Your task to perform on an android device: choose inbox layout in the gmail app Image 0: 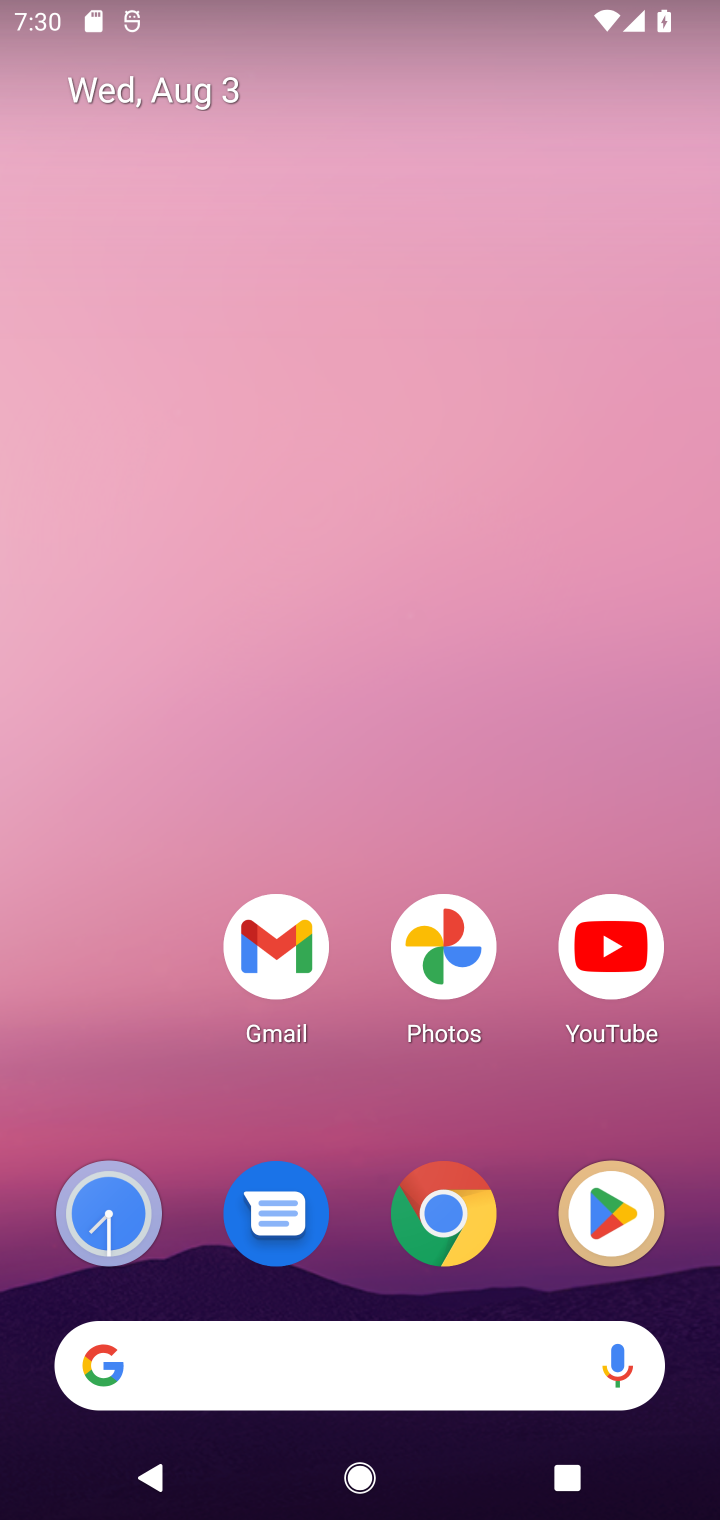
Step 0: click (443, 1204)
Your task to perform on an android device: choose inbox layout in the gmail app Image 1: 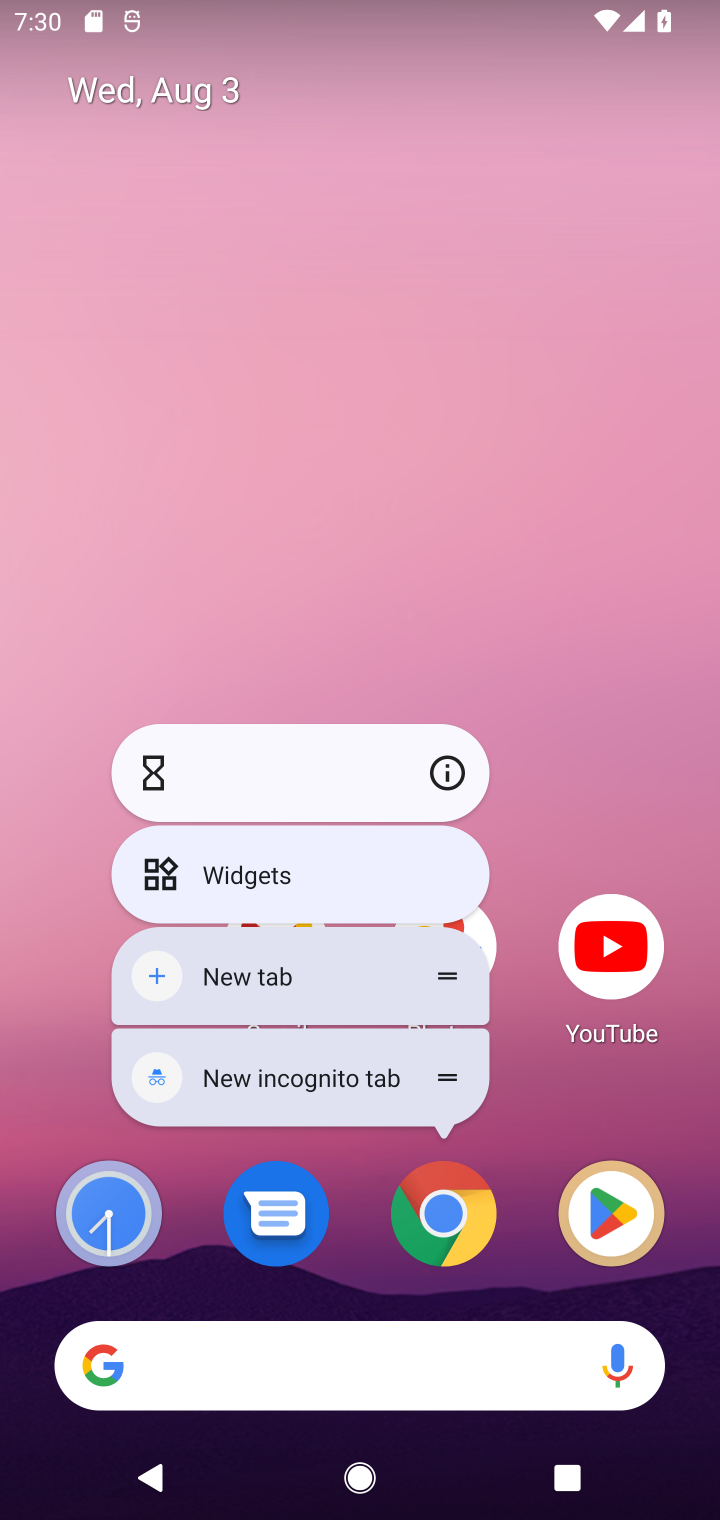
Step 1: click (39, 919)
Your task to perform on an android device: choose inbox layout in the gmail app Image 2: 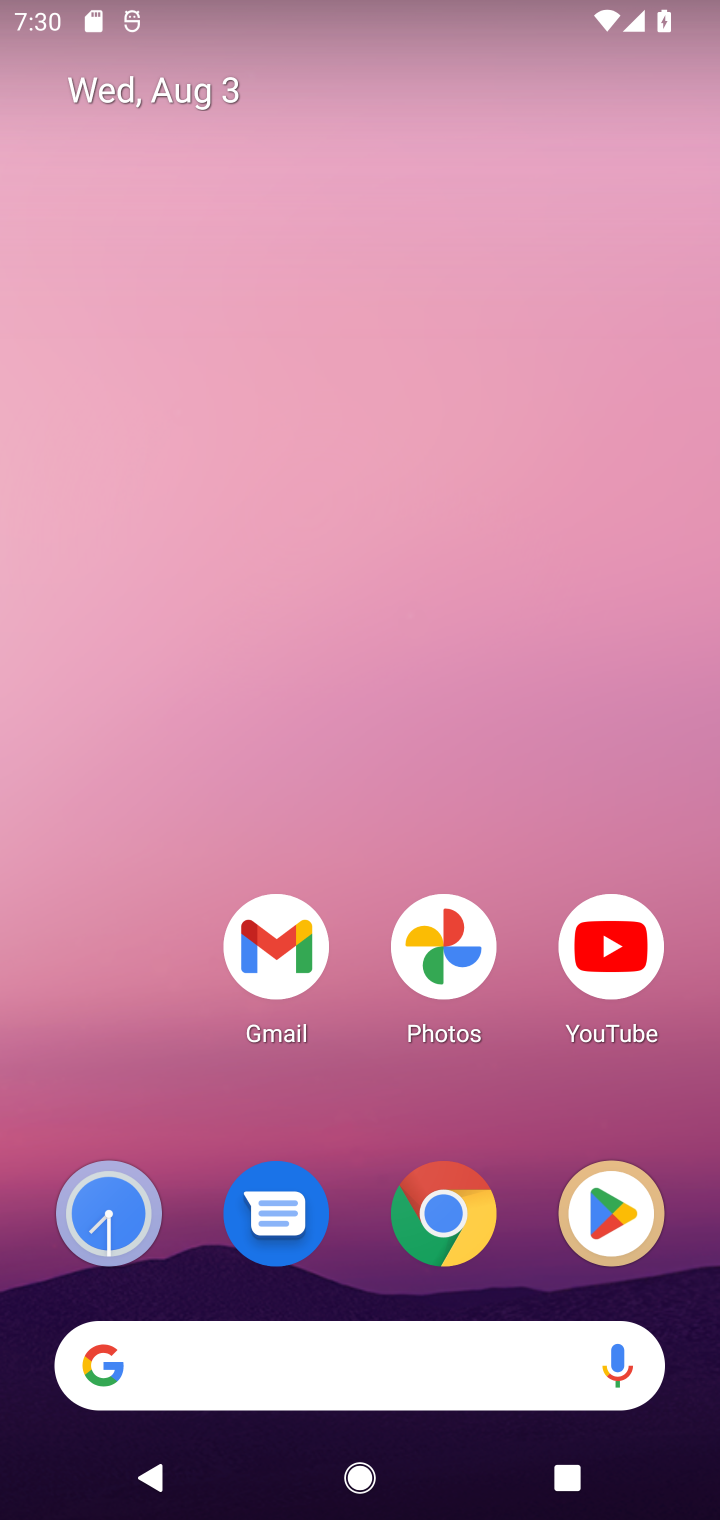
Step 2: click (225, 513)
Your task to perform on an android device: choose inbox layout in the gmail app Image 3: 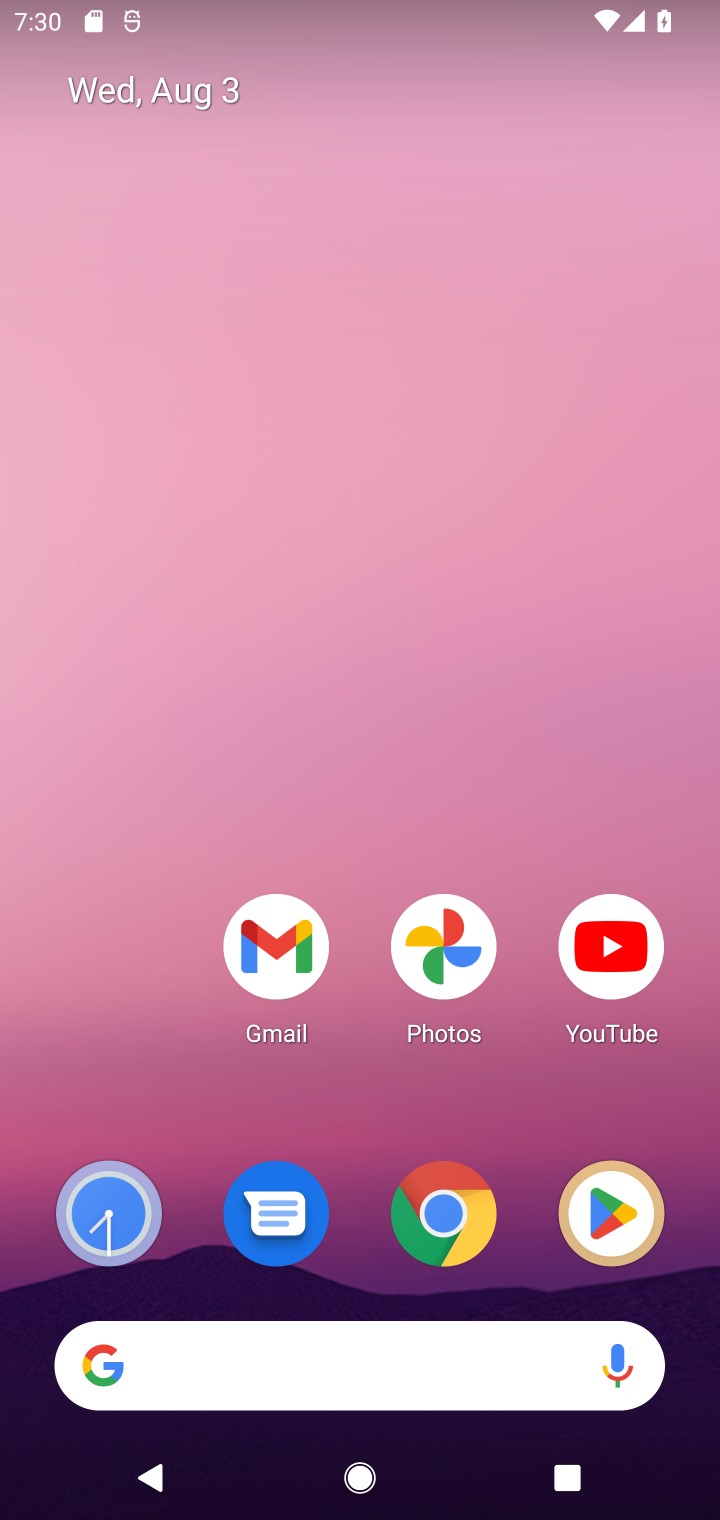
Step 3: click (282, 960)
Your task to perform on an android device: choose inbox layout in the gmail app Image 4: 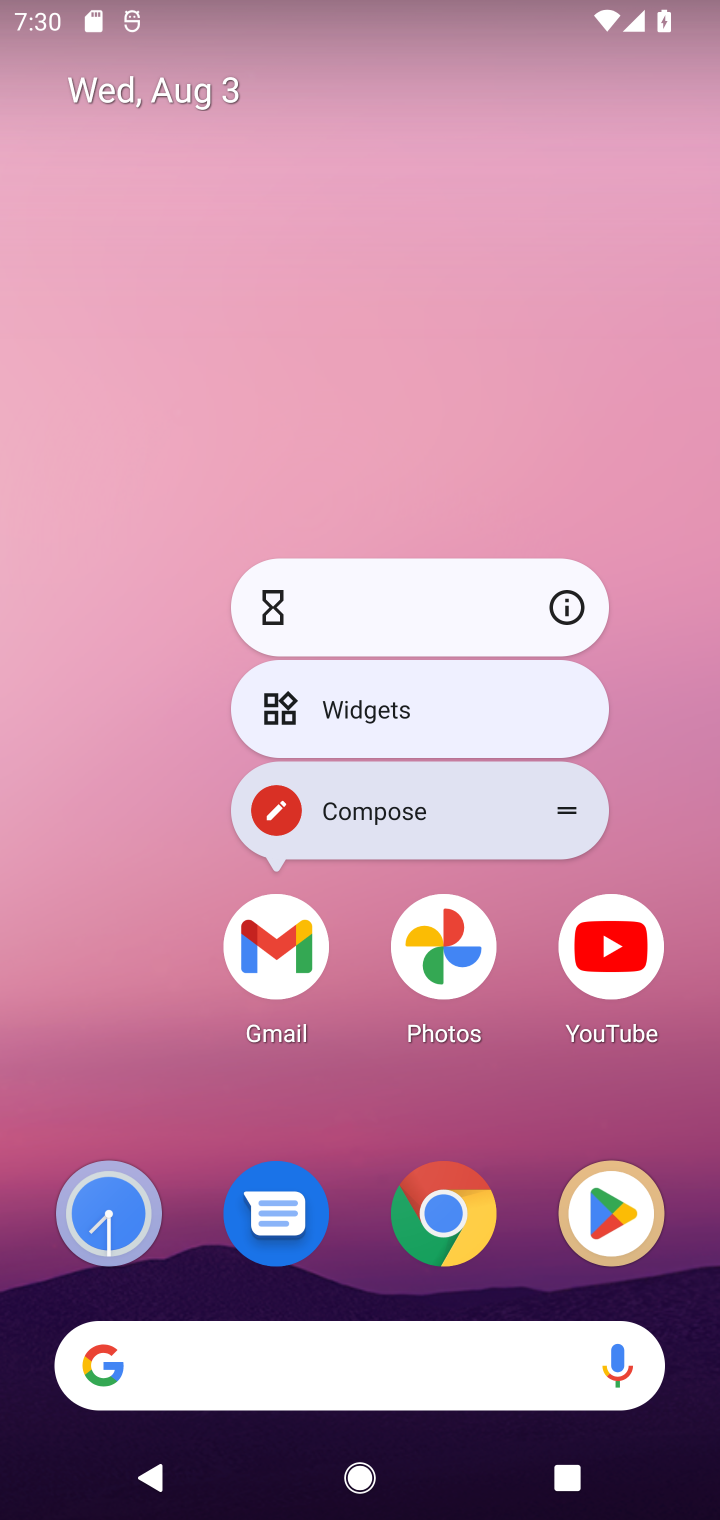
Step 4: click (282, 960)
Your task to perform on an android device: choose inbox layout in the gmail app Image 5: 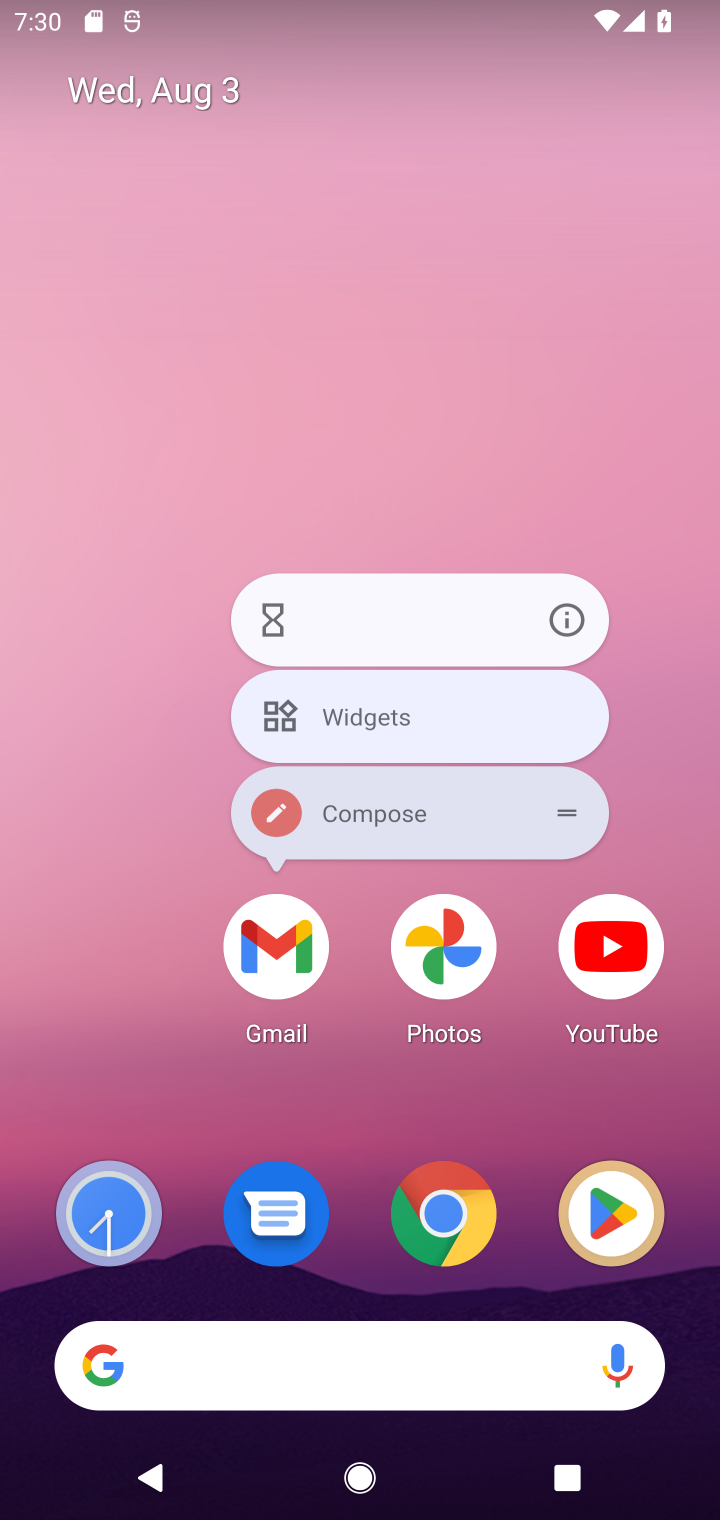
Step 5: click (282, 960)
Your task to perform on an android device: choose inbox layout in the gmail app Image 6: 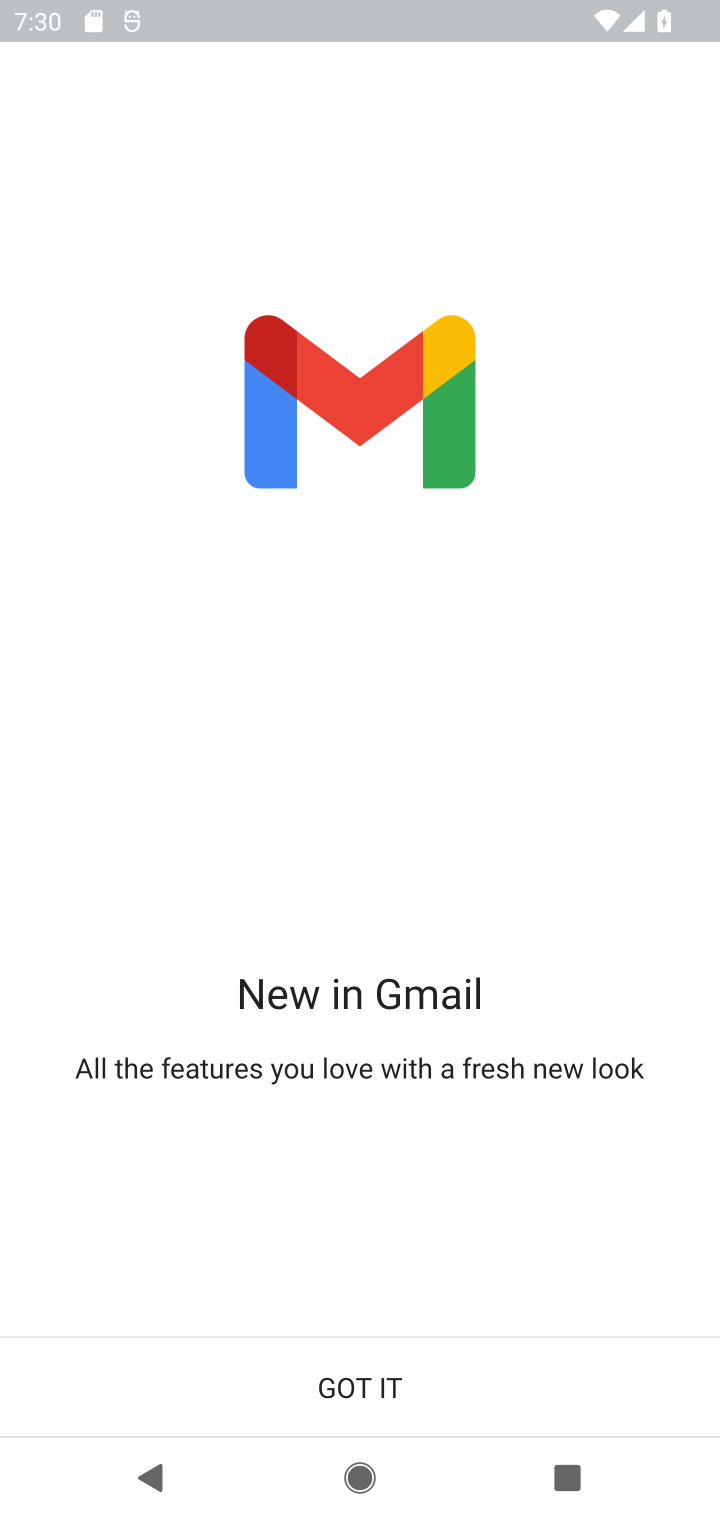
Step 6: click (347, 1382)
Your task to perform on an android device: choose inbox layout in the gmail app Image 7: 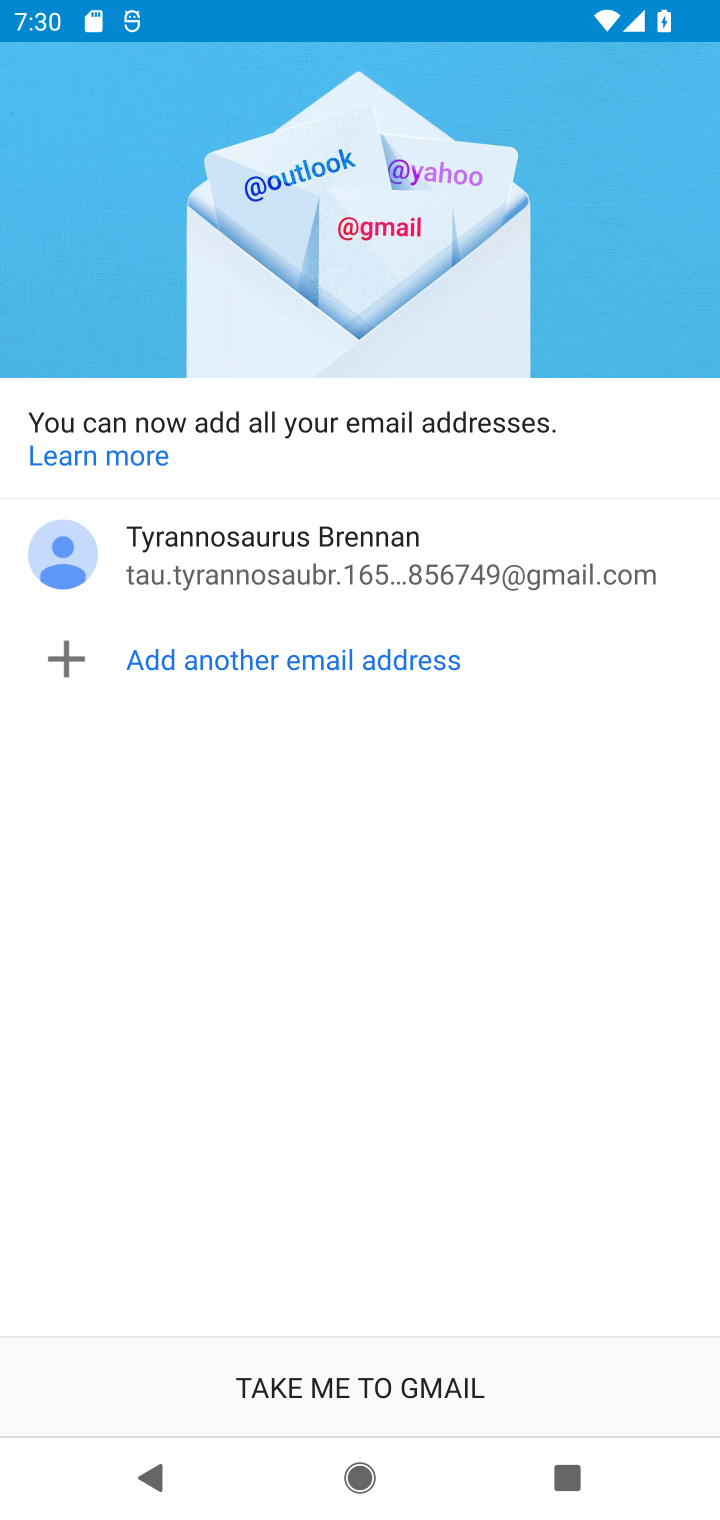
Step 7: click (356, 1387)
Your task to perform on an android device: choose inbox layout in the gmail app Image 8: 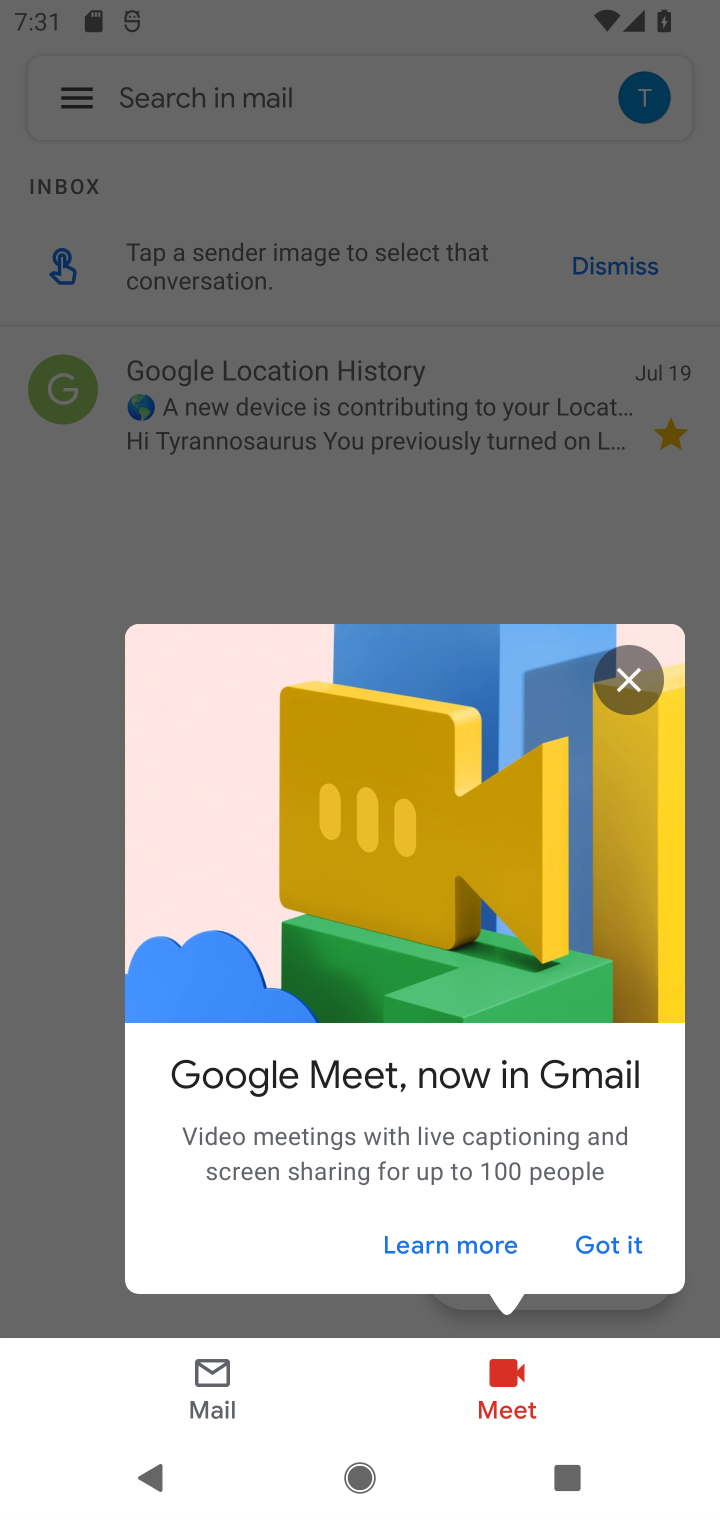
Step 8: click (614, 1236)
Your task to perform on an android device: choose inbox layout in the gmail app Image 9: 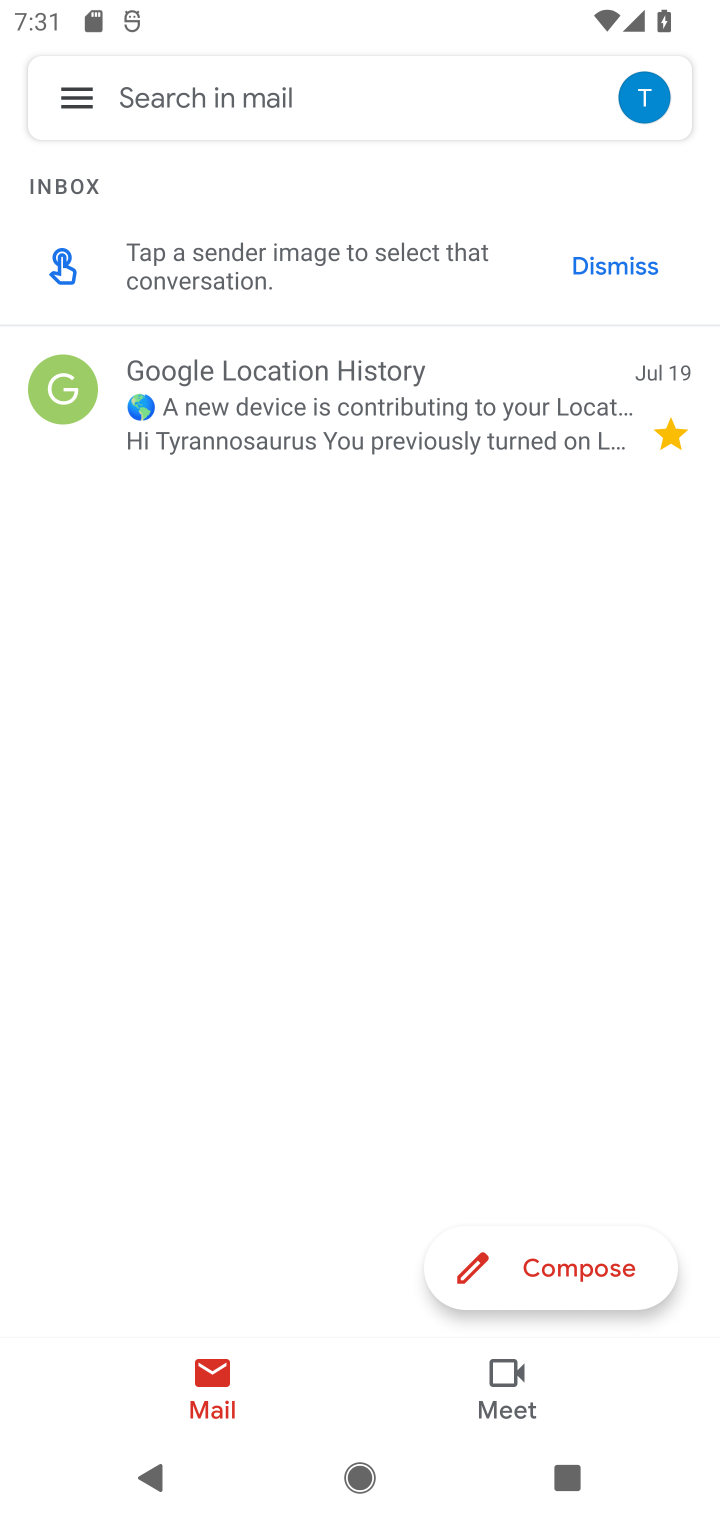
Step 9: click (77, 92)
Your task to perform on an android device: choose inbox layout in the gmail app Image 10: 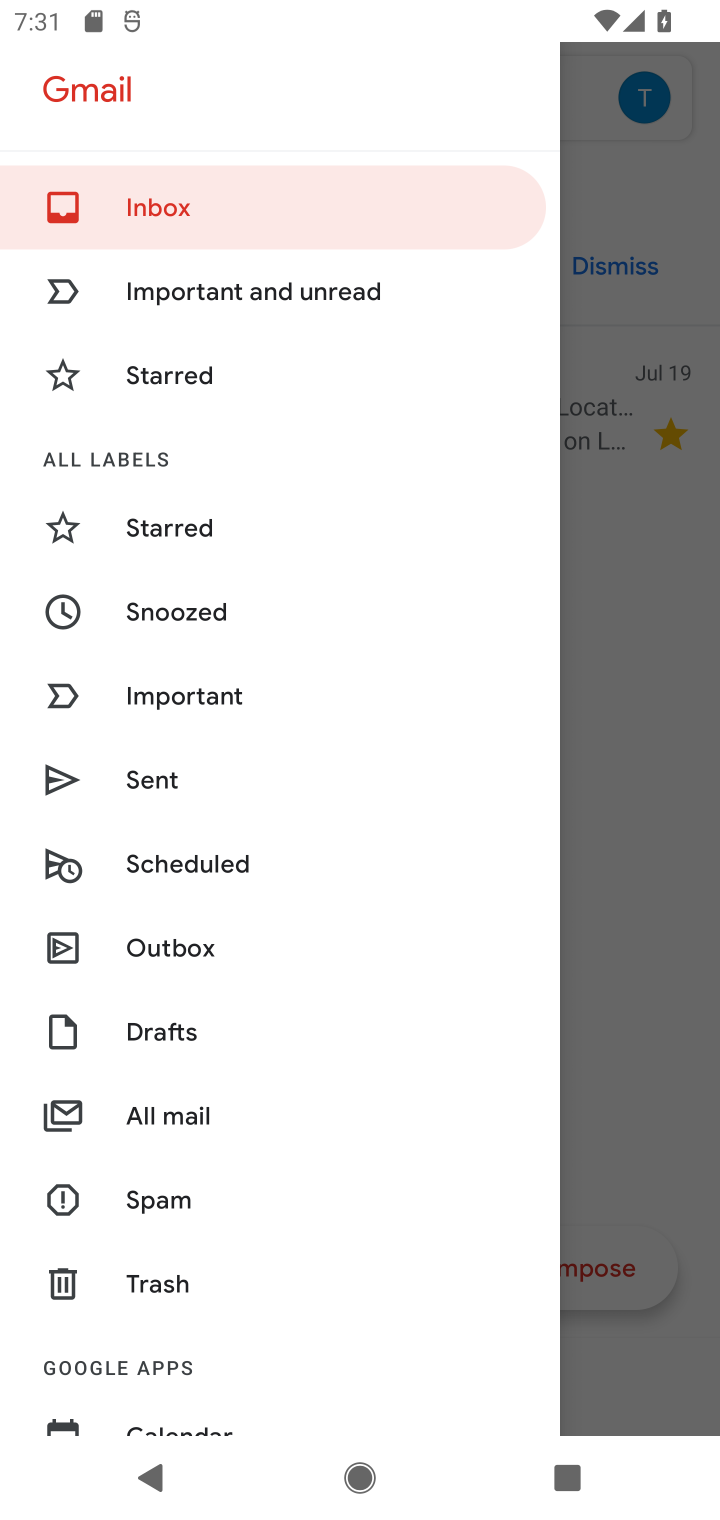
Step 10: drag from (265, 1301) to (480, 73)
Your task to perform on an android device: choose inbox layout in the gmail app Image 11: 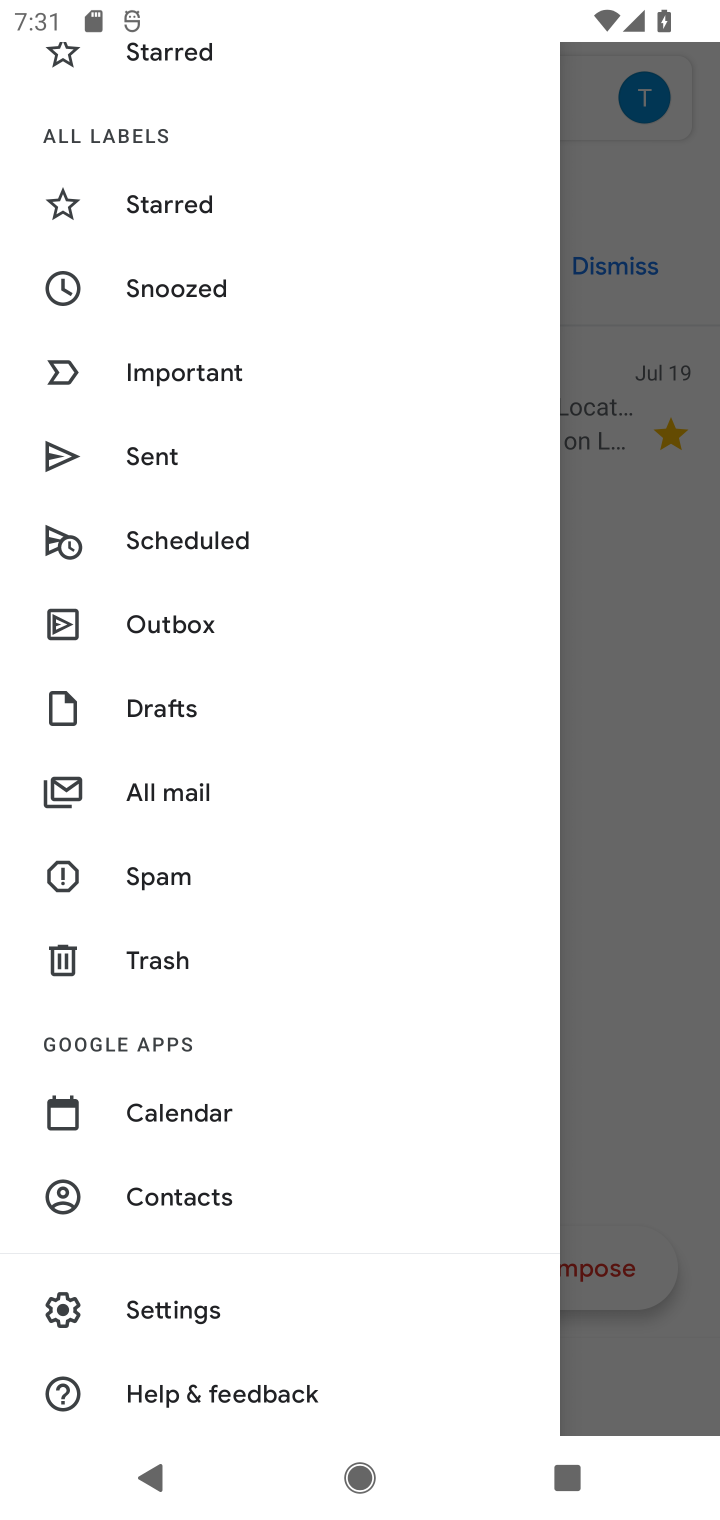
Step 11: click (176, 1315)
Your task to perform on an android device: choose inbox layout in the gmail app Image 12: 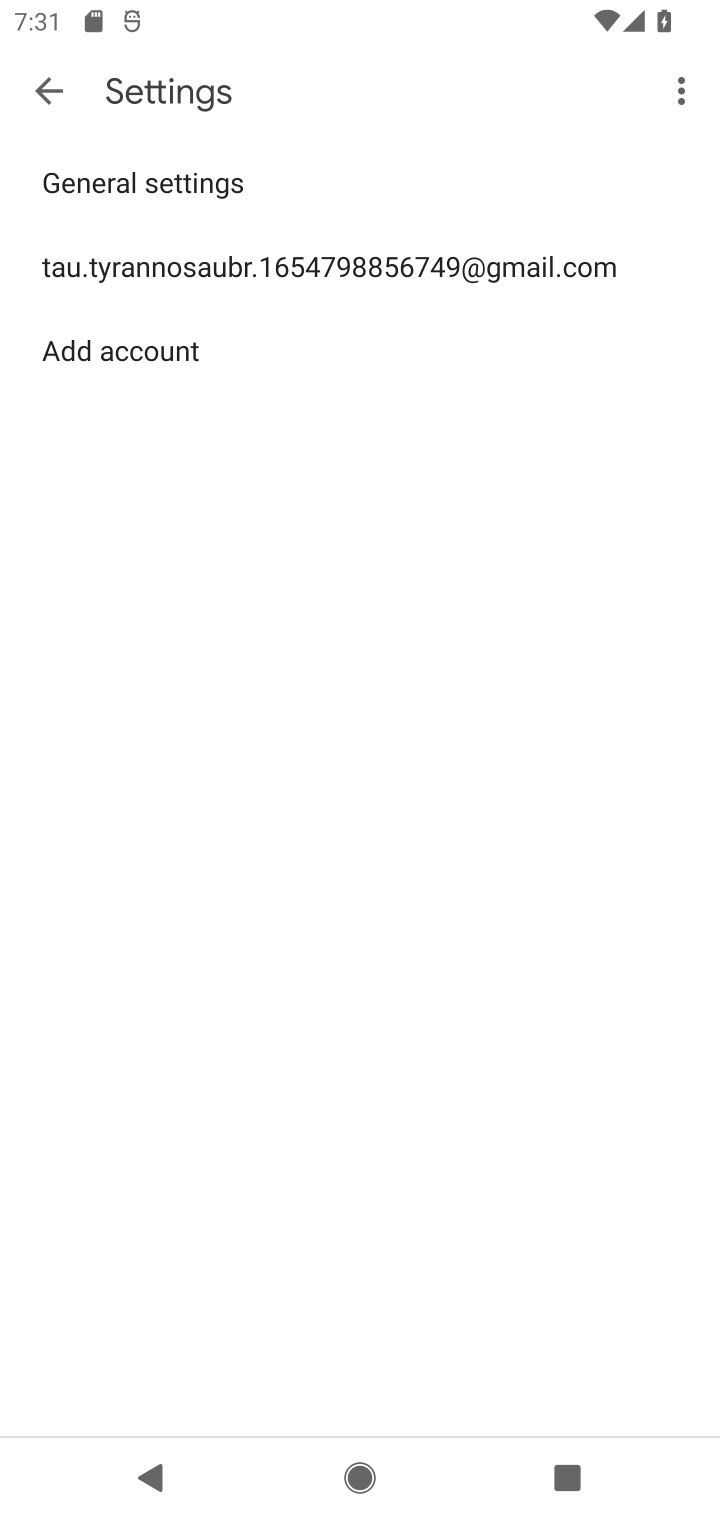
Step 12: click (416, 269)
Your task to perform on an android device: choose inbox layout in the gmail app Image 13: 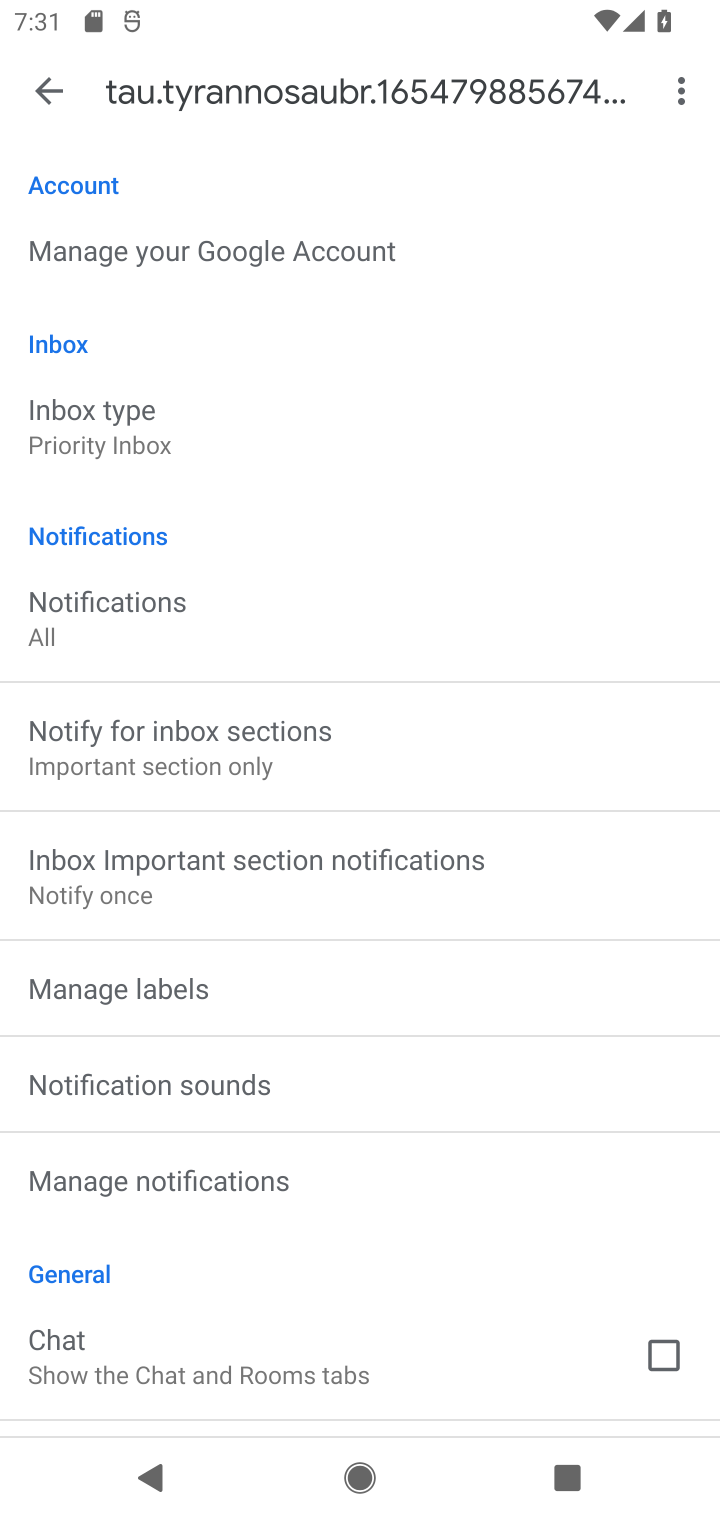
Step 13: click (121, 439)
Your task to perform on an android device: choose inbox layout in the gmail app Image 14: 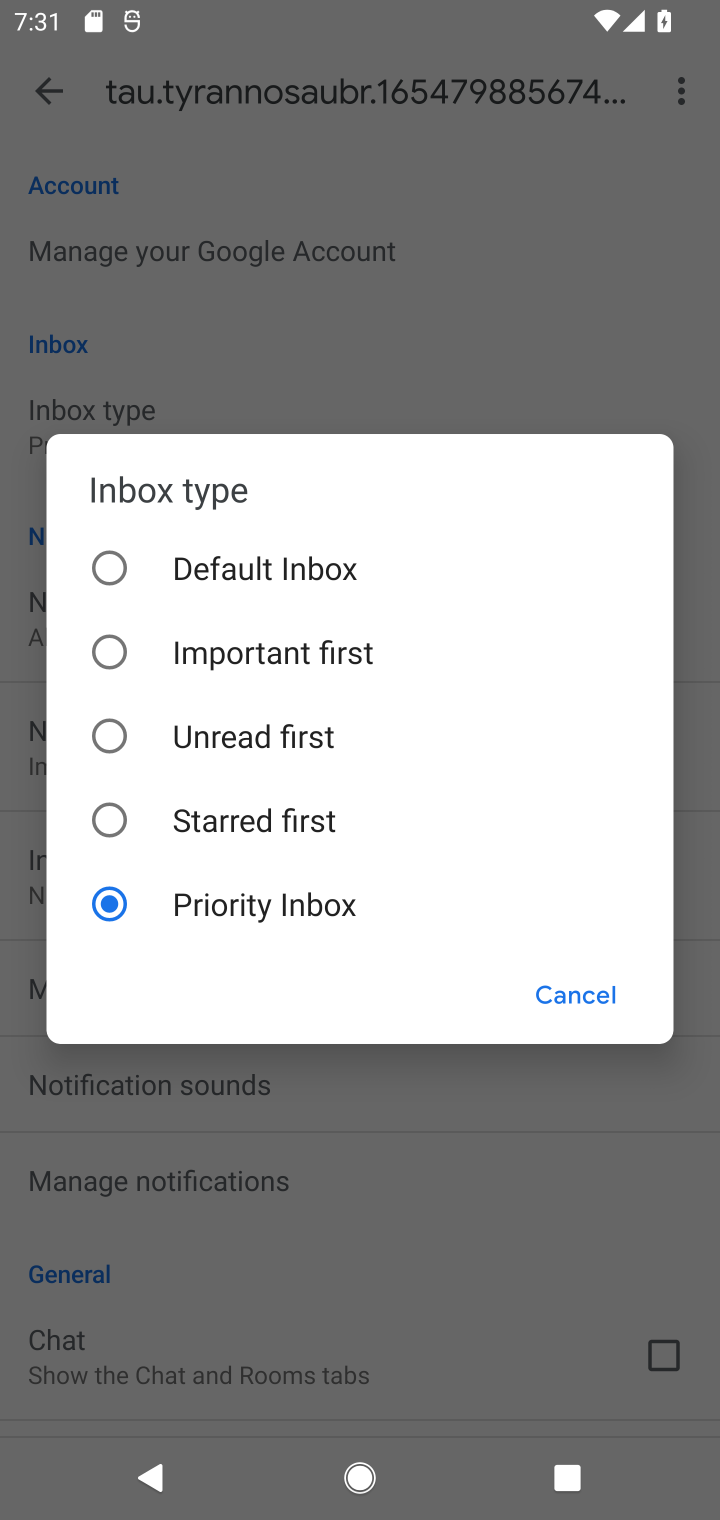
Step 14: click (116, 557)
Your task to perform on an android device: choose inbox layout in the gmail app Image 15: 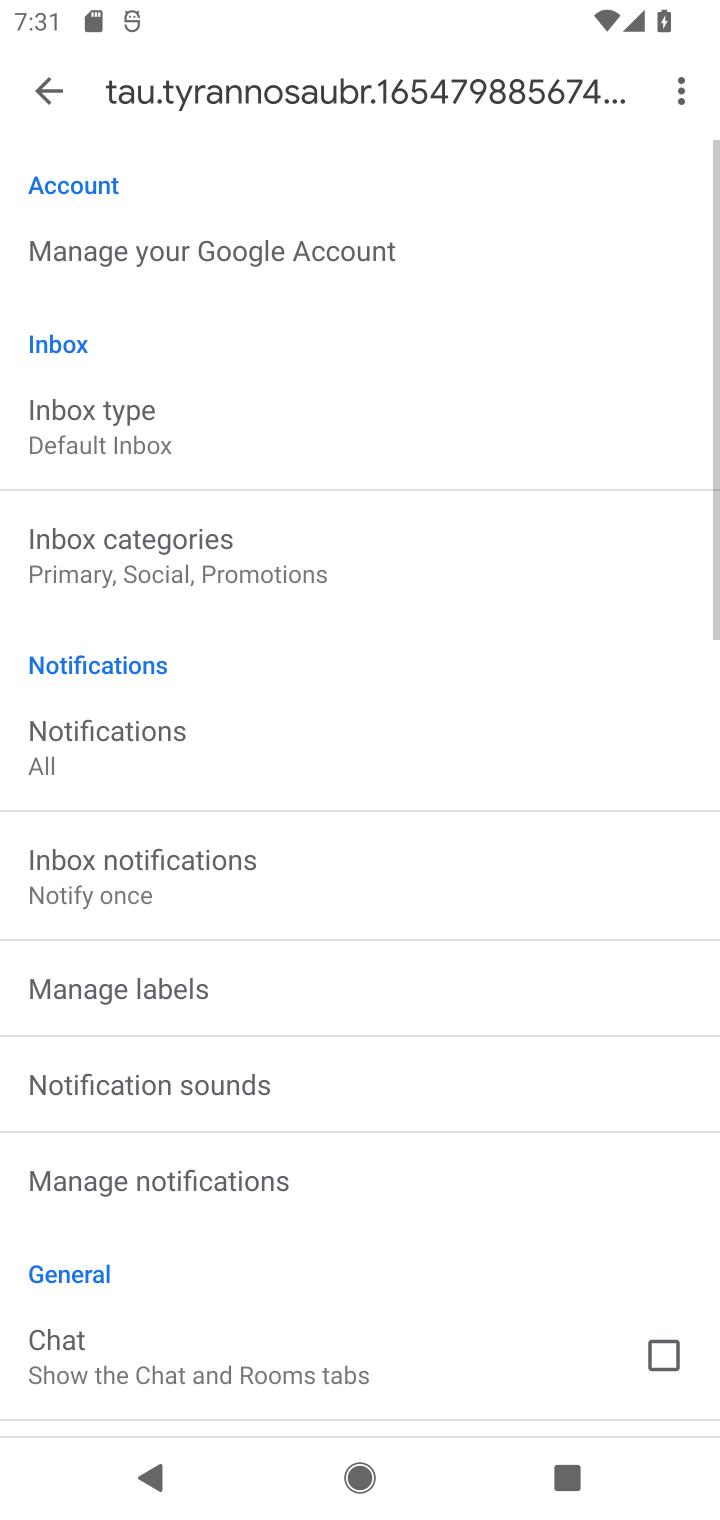
Step 15: task complete